Your task to perform on an android device: move an email to a new category in the gmail app Image 0: 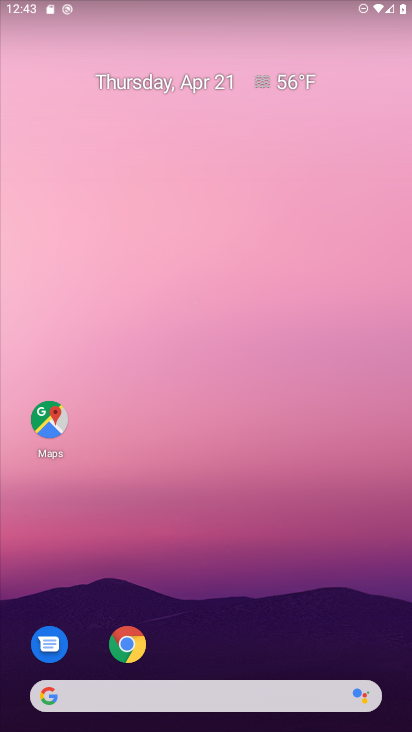
Step 0: drag from (175, 637) to (223, 63)
Your task to perform on an android device: move an email to a new category in the gmail app Image 1: 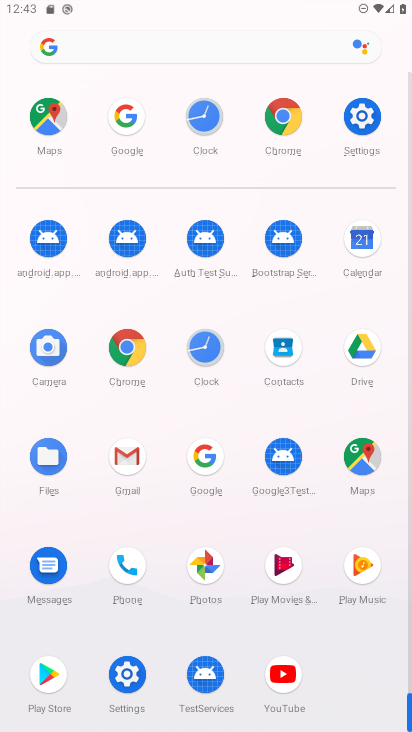
Step 1: click (130, 460)
Your task to perform on an android device: move an email to a new category in the gmail app Image 2: 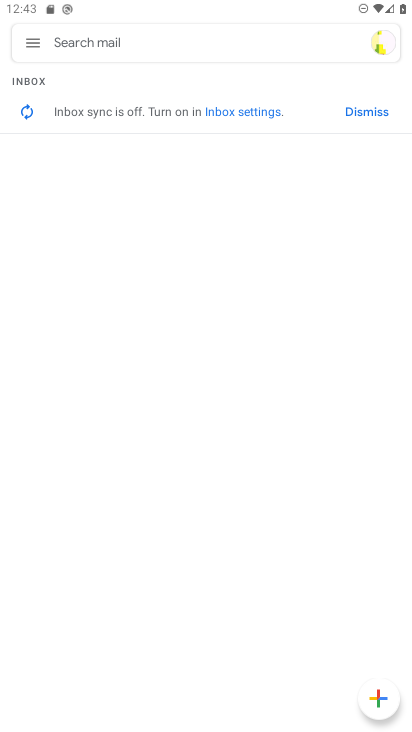
Step 2: click (26, 43)
Your task to perform on an android device: move an email to a new category in the gmail app Image 3: 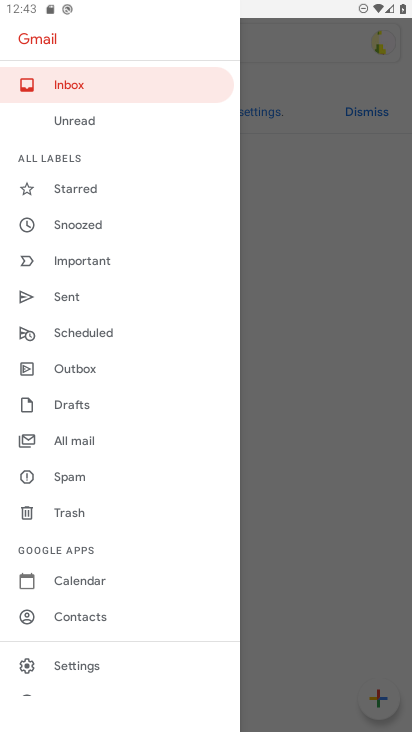
Step 3: click (87, 441)
Your task to perform on an android device: move an email to a new category in the gmail app Image 4: 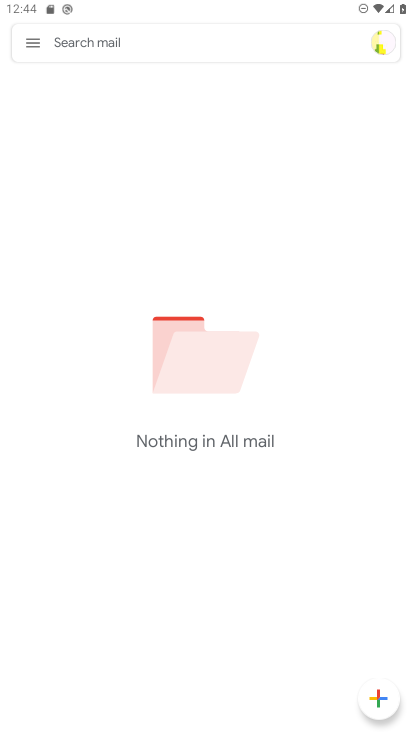
Step 4: task complete